Your task to perform on an android device: Search for Mexican restaurants on Maps Image 0: 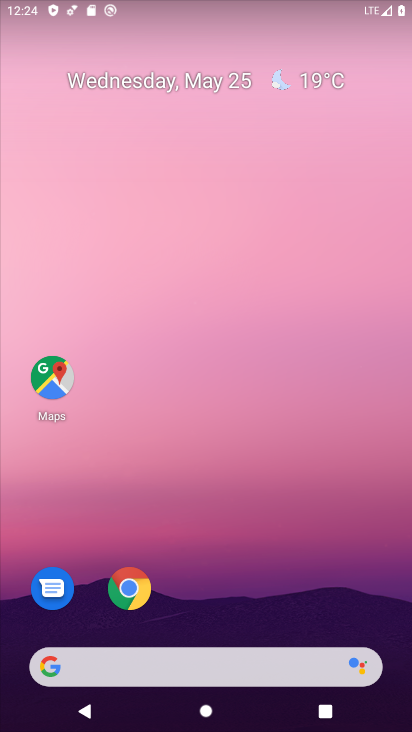
Step 0: click (41, 370)
Your task to perform on an android device: Search for Mexican restaurants on Maps Image 1: 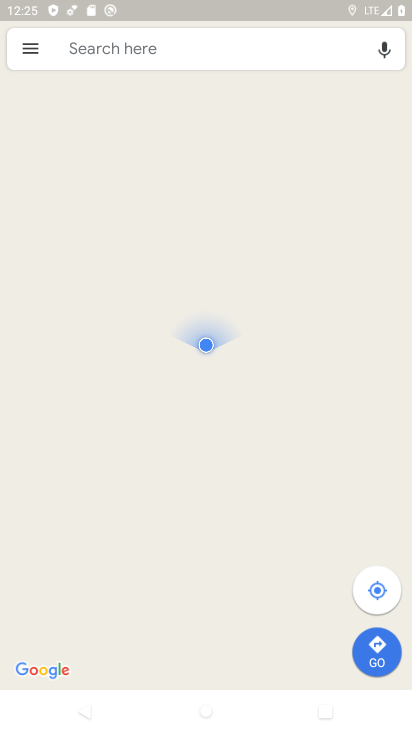
Step 1: click (143, 51)
Your task to perform on an android device: Search for Mexican restaurants on Maps Image 2: 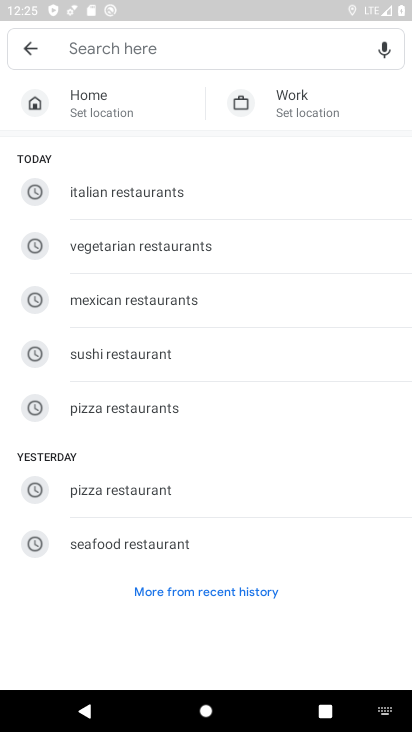
Step 2: type "Mexican restaurants"
Your task to perform on an android device: Search for Mexican restaurants on Maps Image 3: 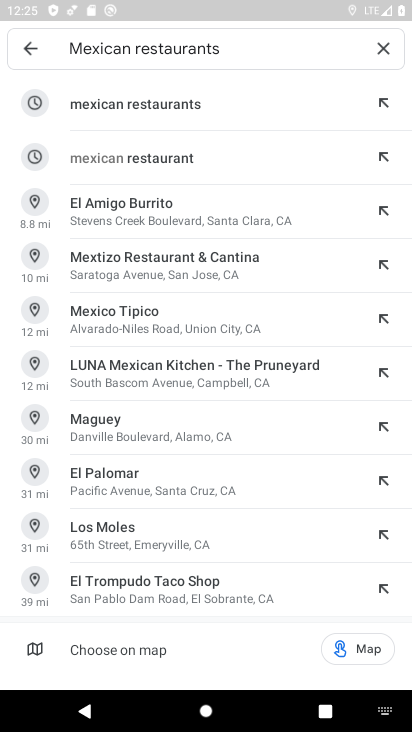
Step 3: click (228, 103)
Your task to perform on an android device: Search for Mexican restaurants on Maps Image 4: 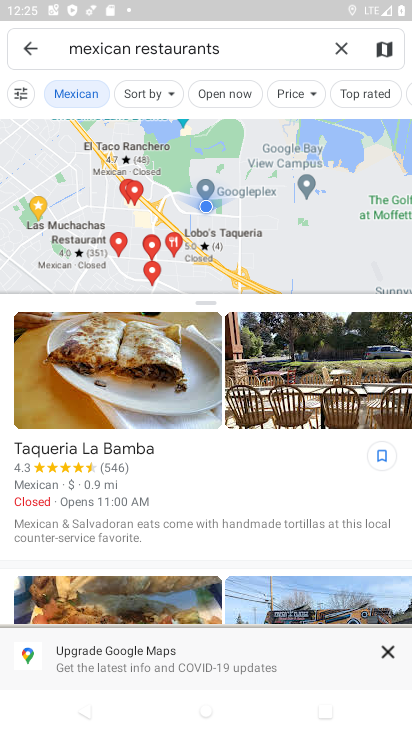
Step 4: task complete